Your task to perform on an android device: Open Google Chrome and open the bookmarks view Image 0: 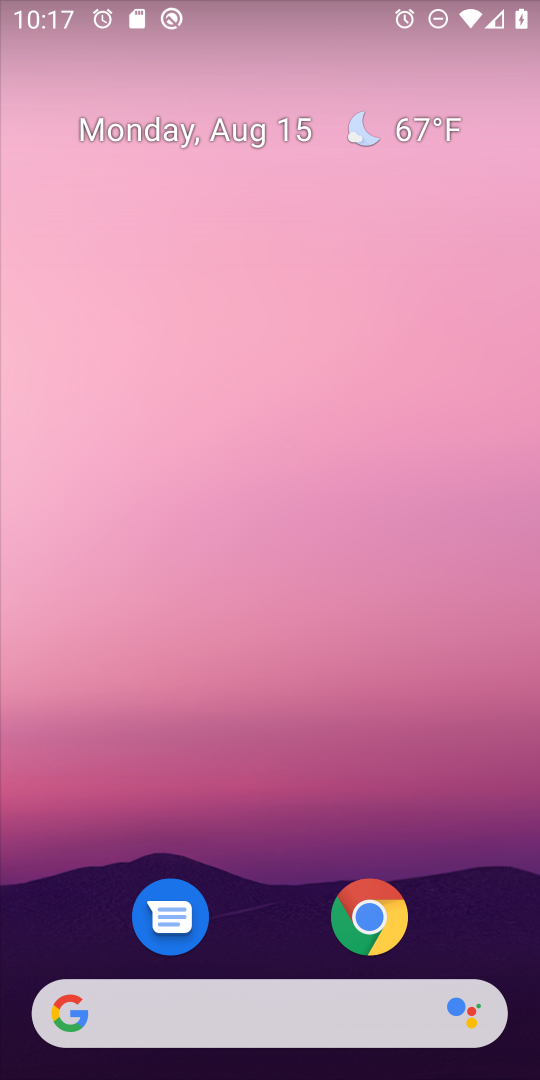
Step 0: click (356, 895)
Your task to perform on an android device: Open Google Chrome and open the bookmarks view Image 1: 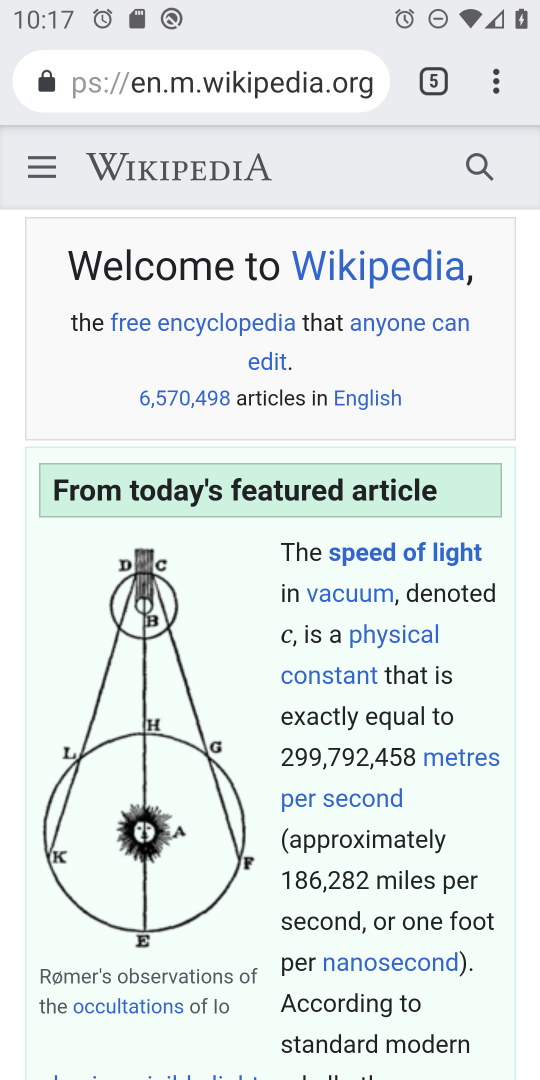
Step 1: click (498, 80)
Your task to perform on an android device: Open Google Chrome and open the bookmarks view Image 2: 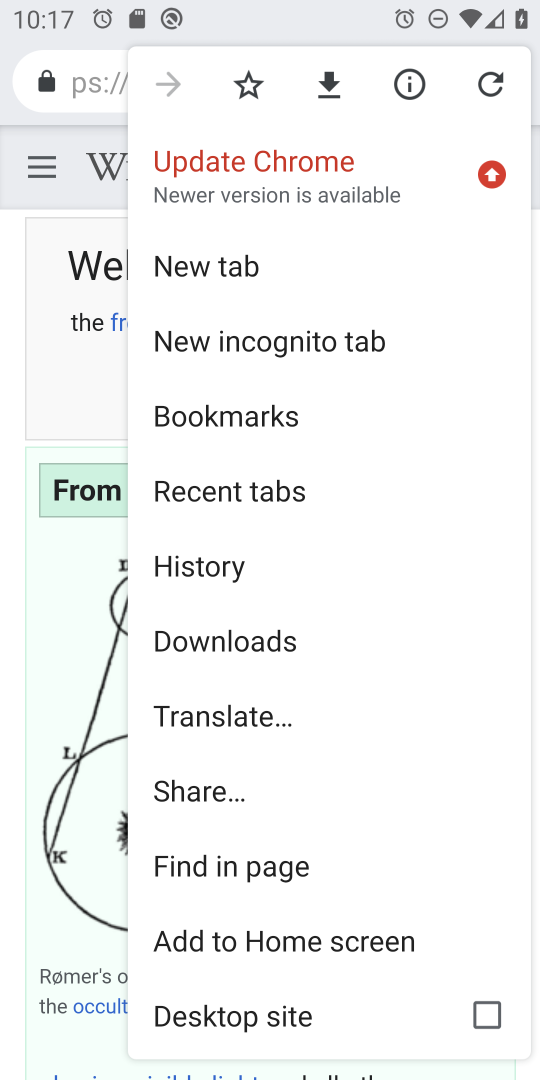
Step 2: click (278, 412)
Your task to perform on an android device: Open Google Chrome and open the bookmarks view Image 3: 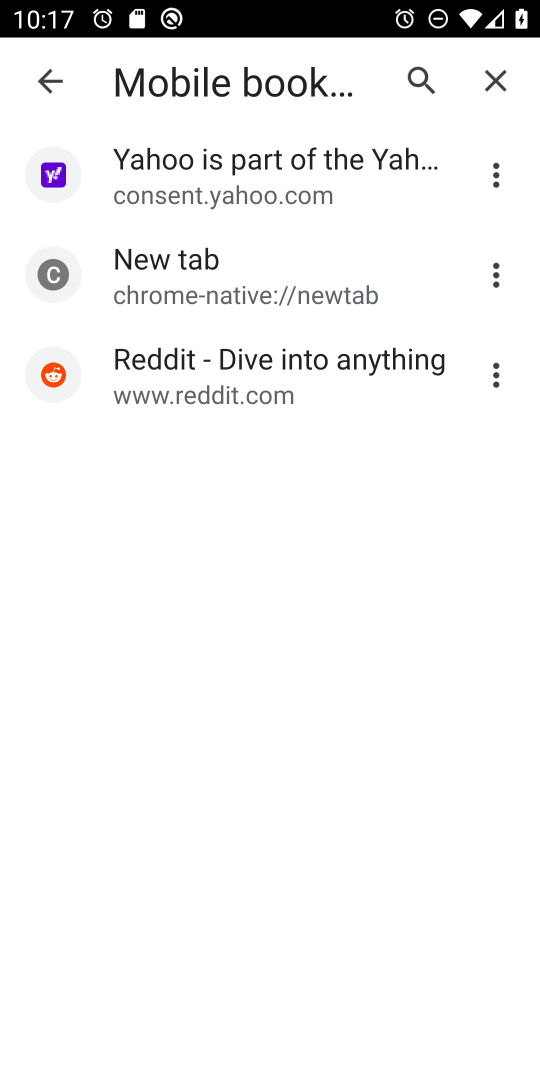
Step 3: task complete